Your task to perform on an android device: check google app version Image 0: 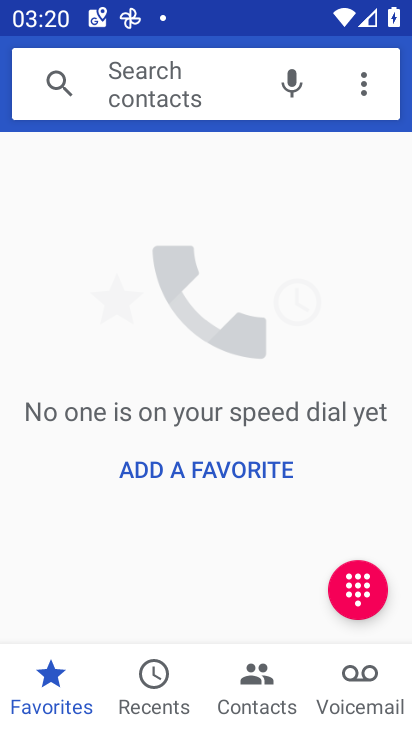
Step 0: press home button
Your task to perform on an android device: check google app version Image 1: 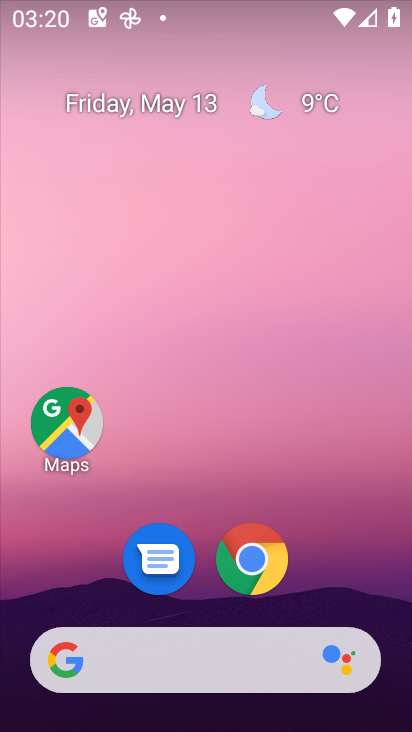
Step 1: drag from (390, 632) to (336, 355)
Your task to perform on an android device: check google app version Image 2: 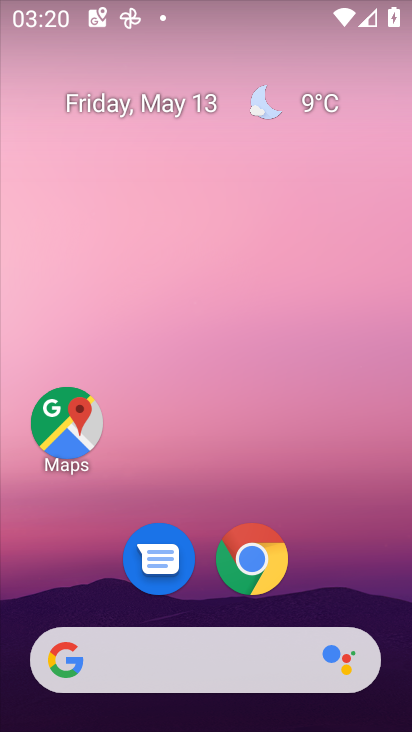
Step 2: drag from (406, 667) to (334, 168)
Your task to perform on an android device: check google app version Image 3: 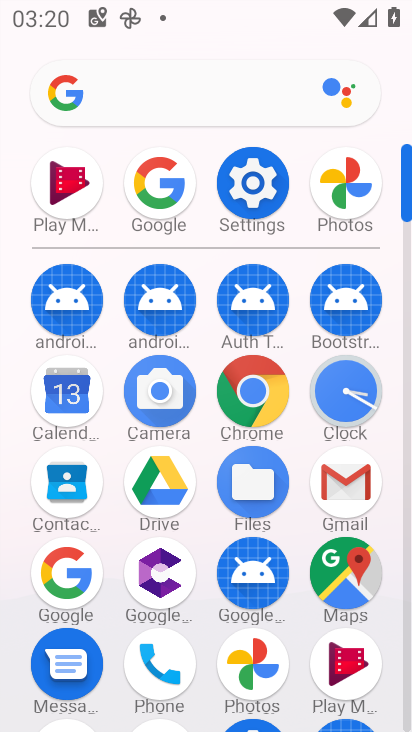
Step 3: click (77, 591)
Your task to perform on an android device: check google app version Image 4: 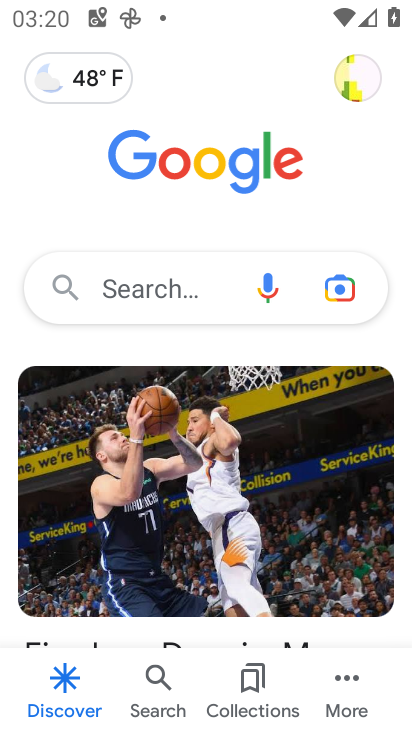
Step 4: click (347, 697)
Your task to perform on an android device: check google app version Image 5: 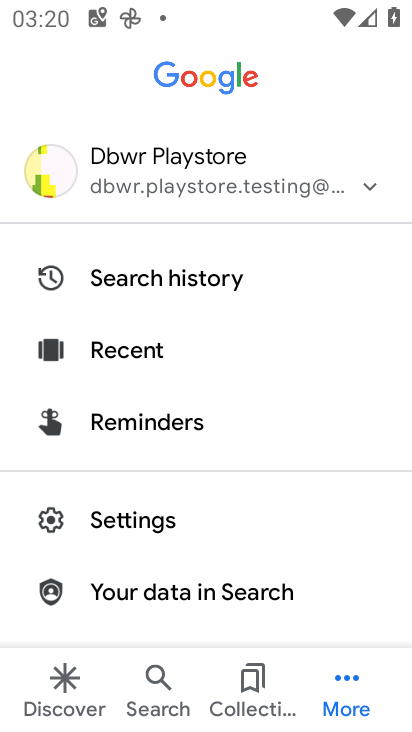
Step 5: click (115, 525)
Your task to perform on an android device: check google app version Image 6: 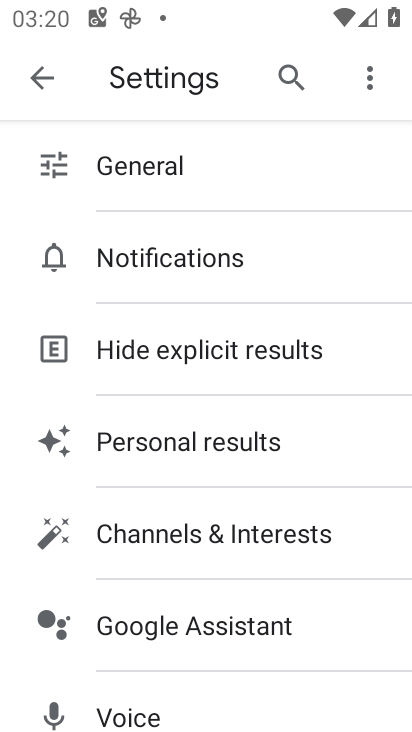
Step 6: drag from (207, 691) to (199, 424)
Your task to perform on an android device: check google app version Image 7: 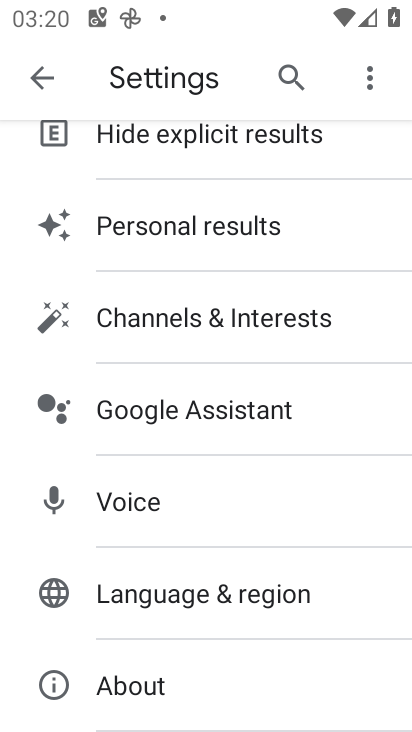
Step 7: drag from (211, 673) to (218, 464)
Your task to perform on an android device: check google app version Image 8: 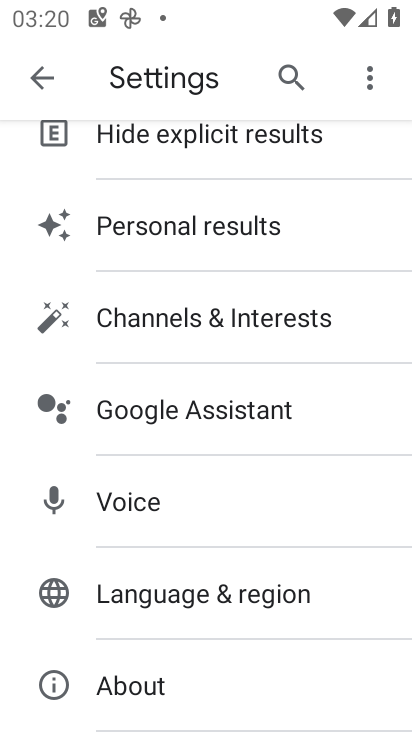
Step 8: drag from (241, 231) to (270, 553)
Your task to perform on an android device: check google app version Image 9: 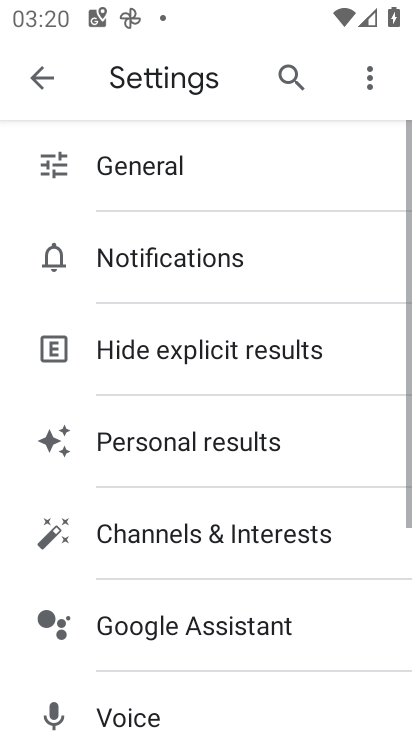
Step 9: click (248, 498)
Your task to perform on an android device: check google app version Image 10: 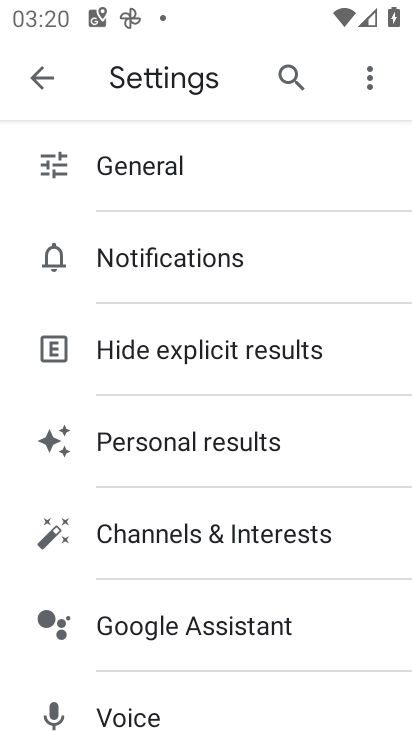
Step 10: drag from (292, 242) to (319, 496)
Your task to perform on an android device: check google app version Image 11: 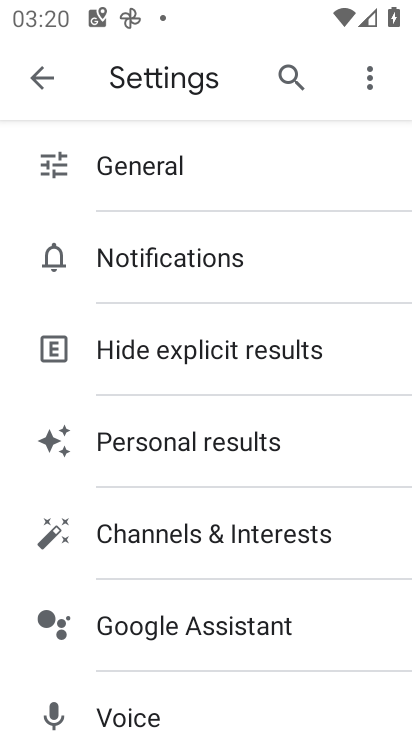
Step 11: drag from (252, 669) to (264, 443)
Your task to perform on an android device: check google app version Image 12: 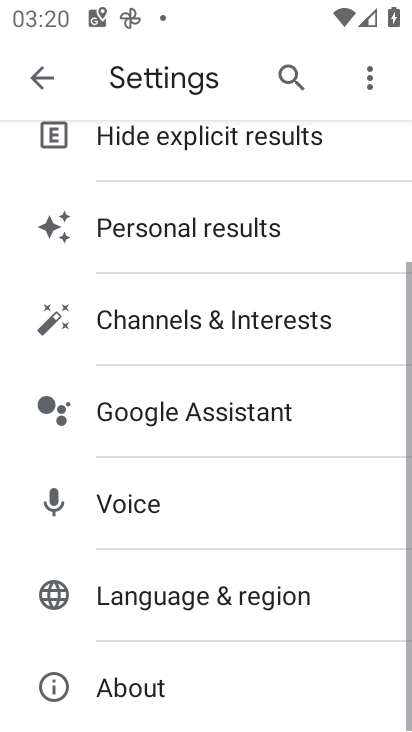
Step 12: drag from (257, 684) to (260, 441)
Your task to perform on an android device: check google app version Image 13: 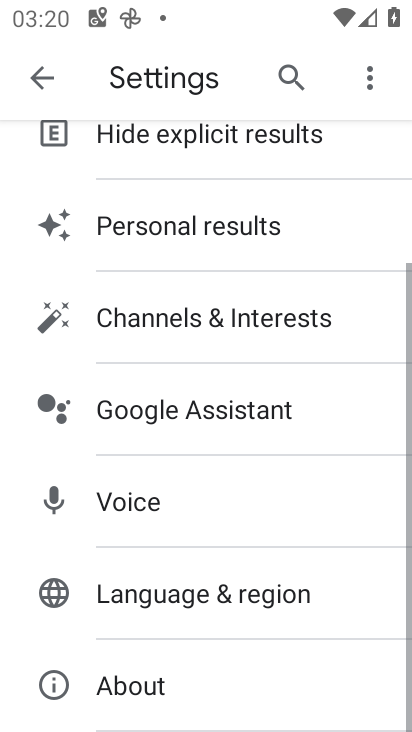
Step 13: click (146, 687)
Your task to perform on an android device: check google app version Image 14: 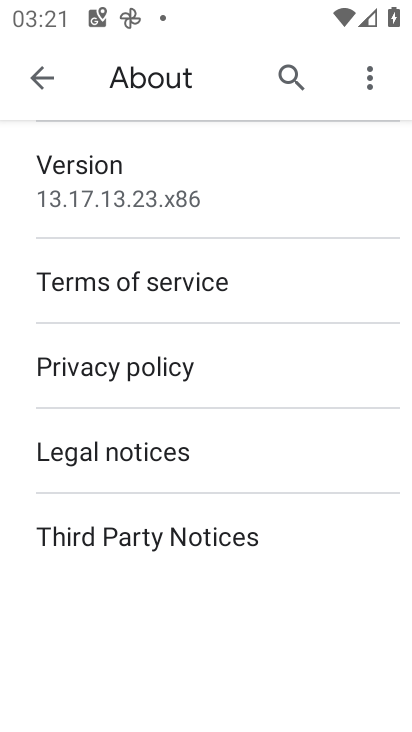
Step 14: task complete